Your task to perform on an android device: turn on notifications settings in the gmail app Image 0: 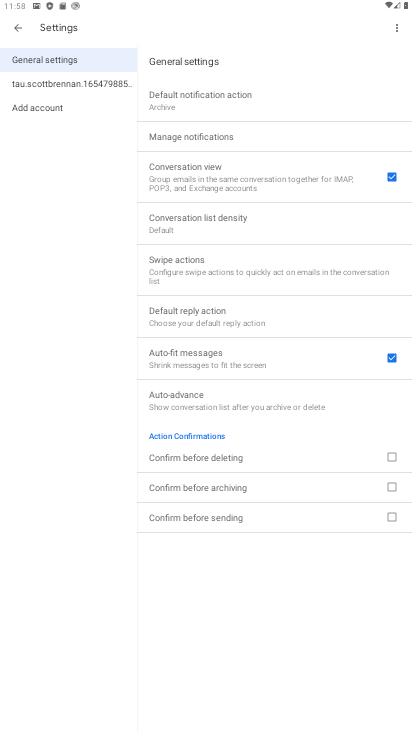
Step 0: press home button
Your task to perform on an android device: turn on notifications settings in the gmail app Image 1: 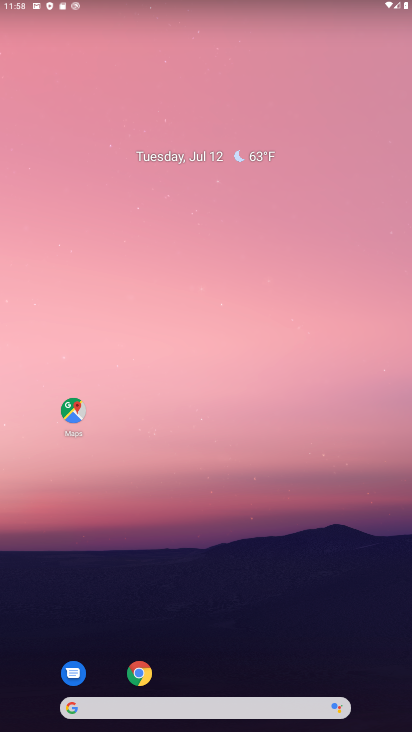
Step 1: drag from (261, 587) to (93, 5)
Your task to perform on an android device: turn on notifications settings in the gmail app Image 2: 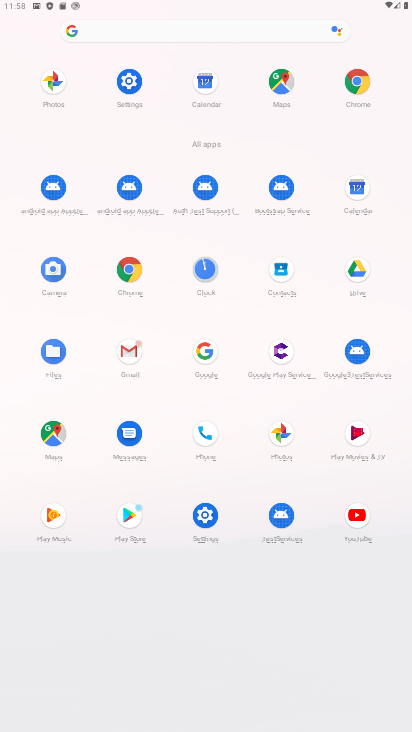
Step 2: click (157, 363)
Your task to perform on an android device: turn on notifications settings in the gmail app Image 3: 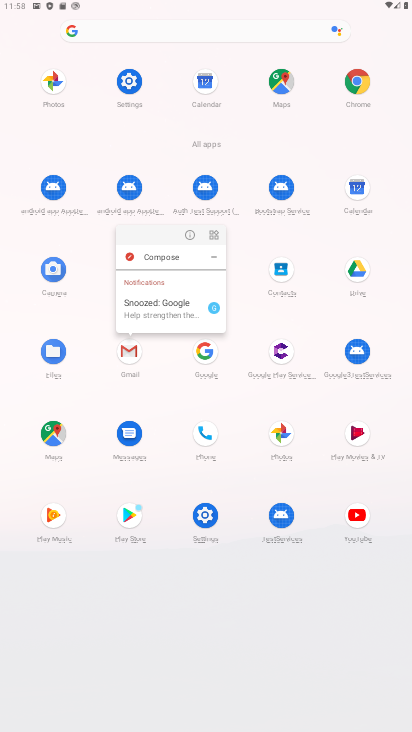
Step 3: click (181, 240)
Your task to perform on an android device: turn on notifications settings in the gmail app Image 4: 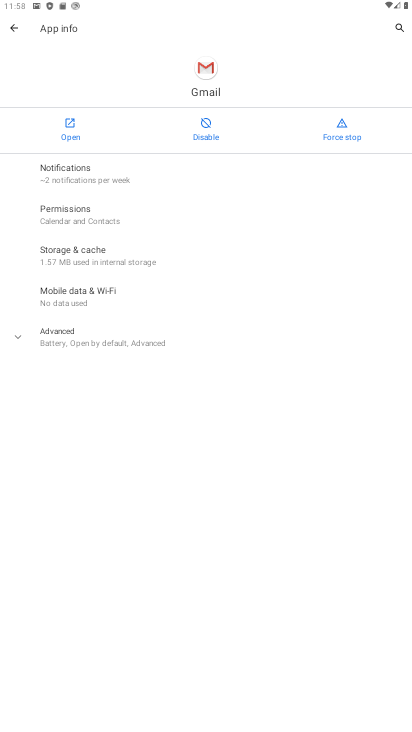
Step 4: click (71, 181)
Your task to perform on an android device: turn on notifications settings in the gmail app Image 5: 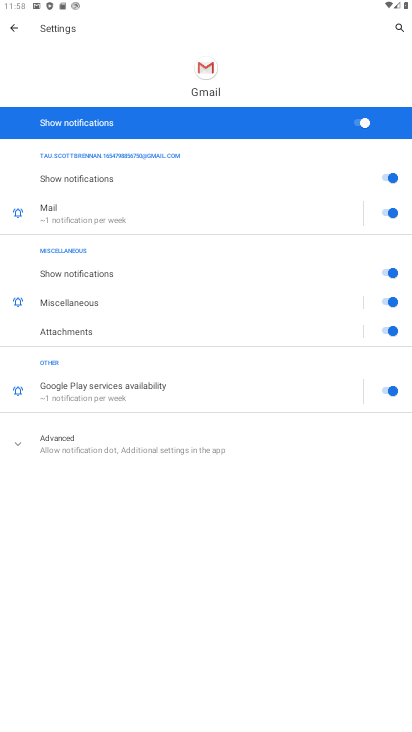
Step 5: task complete